Your task to perform on an android device: open a bookmark in the chrome app Image 0: 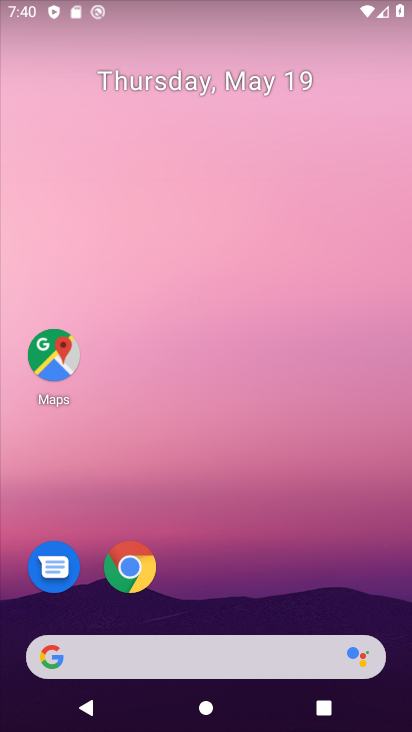
Step 0: click (125, 558)
Your task to perform on an android device: open a bookmark in the chrome app Image 1: 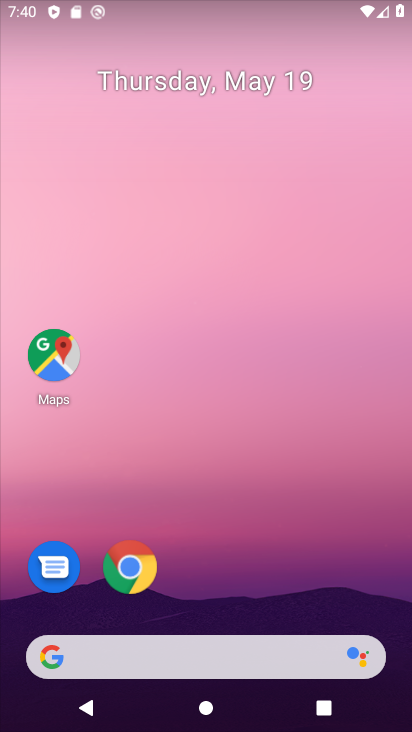
Step 1: click (130, 573)
Your task to perform on an android device: open a bookmark in the chrome app Image 2: 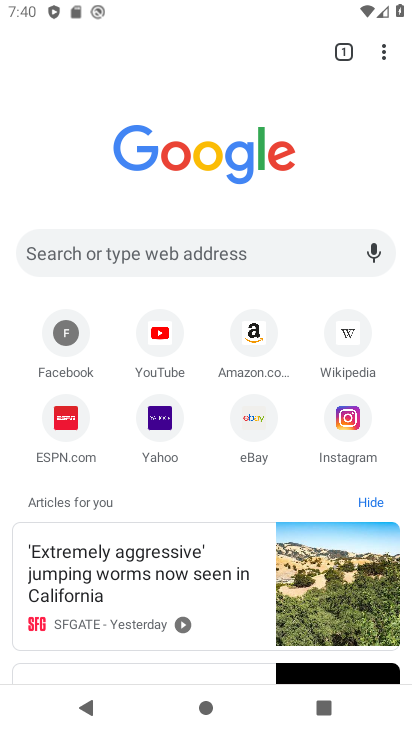
Step 2: click (389, 50)
Your task to perform on an android device: open a bookmark in the chrome app Image 3: 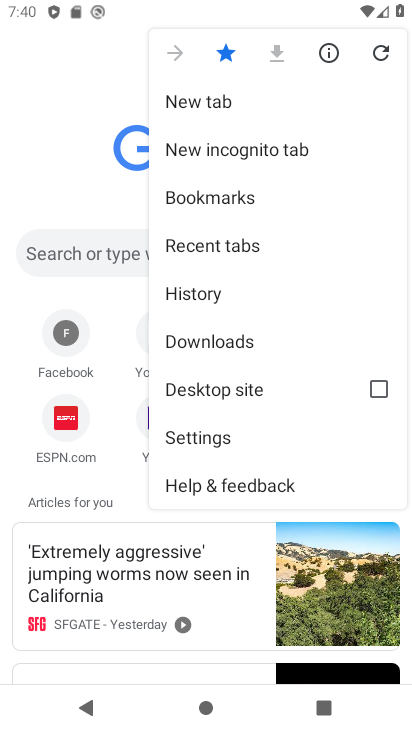
Step 3: click (185, 185)
Your task to perform on an android device: open a bookmark in the chrome app Image 4: 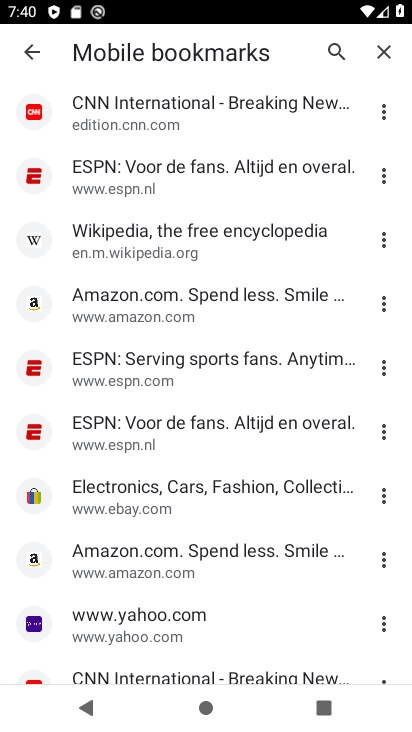
Step 4: click (185, 185)
Your task to perform on an android device: open a bookmark in the chrome app Image 5: 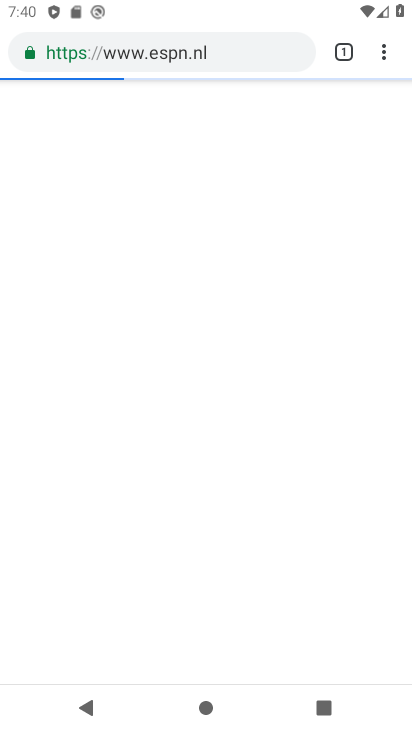
Step 5: click (136, 179)
Your task to perform on an android device: open a bookmark in the chrome app Image 6: 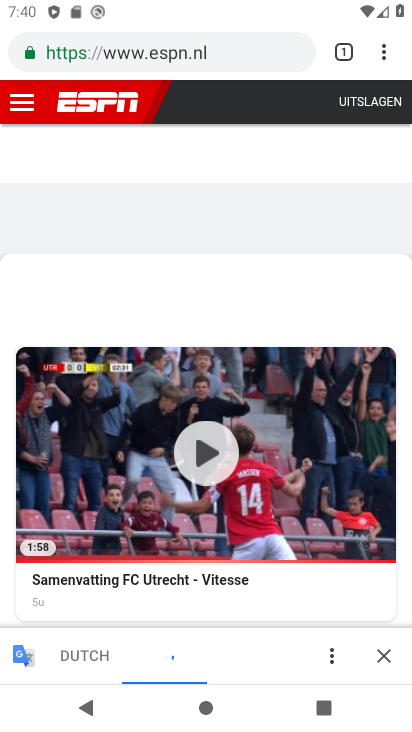
Step 6: task complete